Your task to perform on an android device: Is it going to rain today? Image 0: 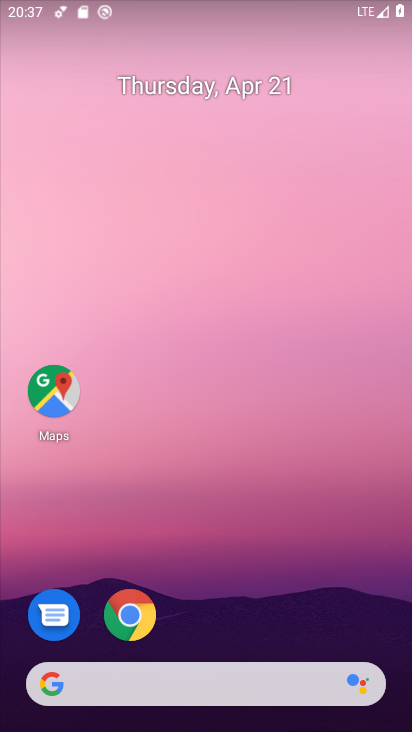
Step 0: drag from (219, 626) to (250, 96)
Your task to perform on an android device: Is it going to rain today? Image 1: 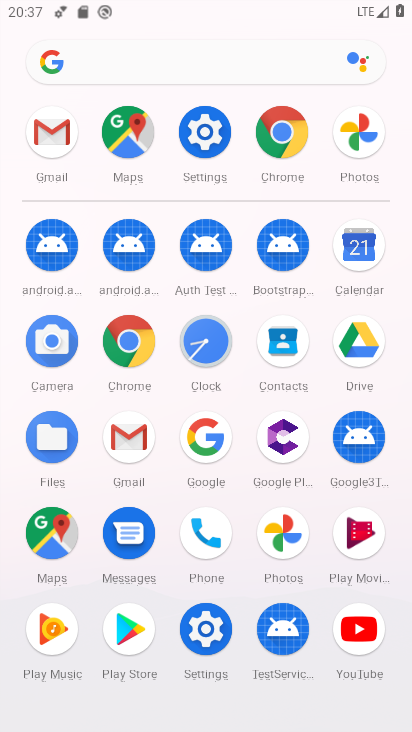
Step 1: click (129, 338)
Your task to perform on an android device: Is it going to rain today? Image 2: 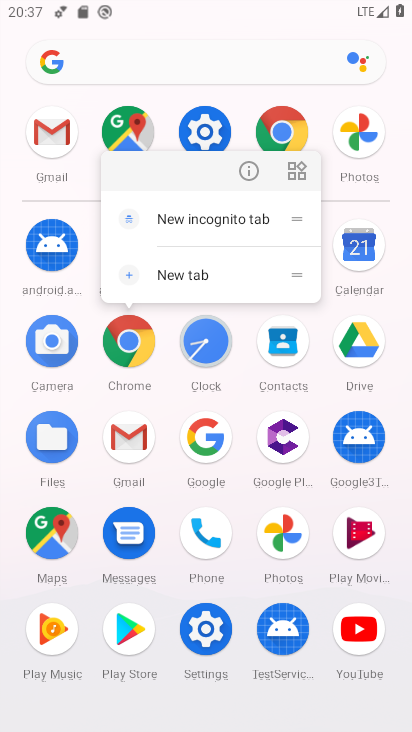
Step 2: click (243, 161)
Your task to perform on an android device: Is it going to rain today? Image 3: 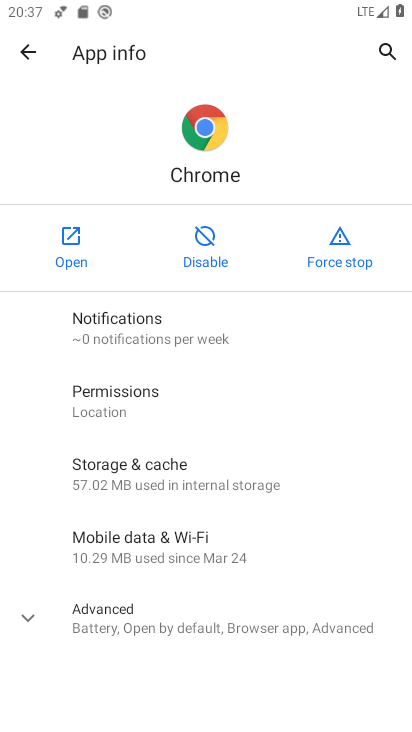
Step 3: click (75, 226)
Your task to perform on an android device: Is it going to rain today? Image 4: 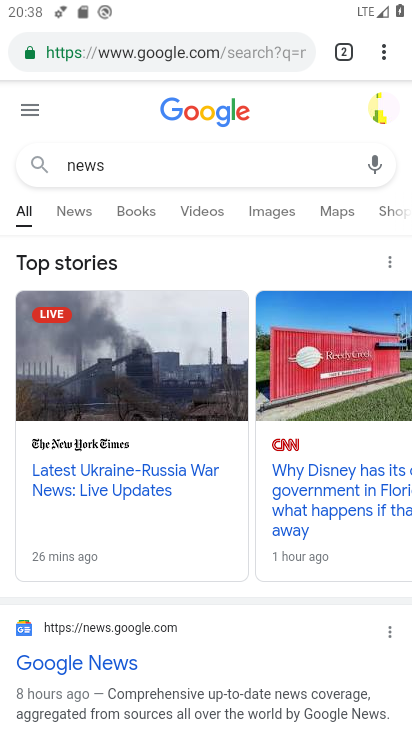
Step 4: drag from (218, 643) to (263, 154)
Your task to perform on an android device: Is it going to rain today? Image 5: 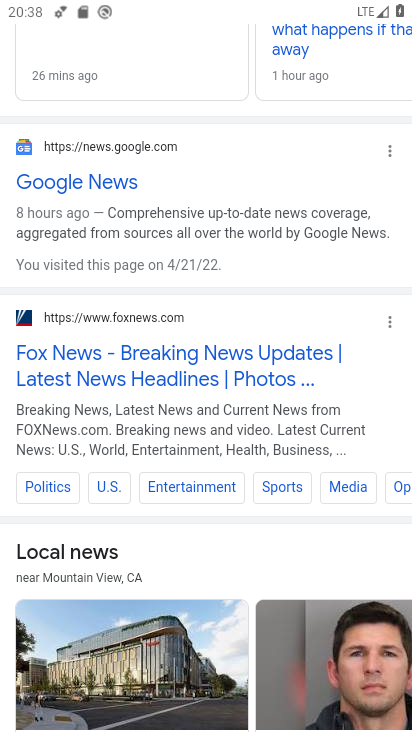
Step 5: drag from (204, 333) to (273, 729)
Your task to perform on an android device: Is it going to rain today? Image 6: 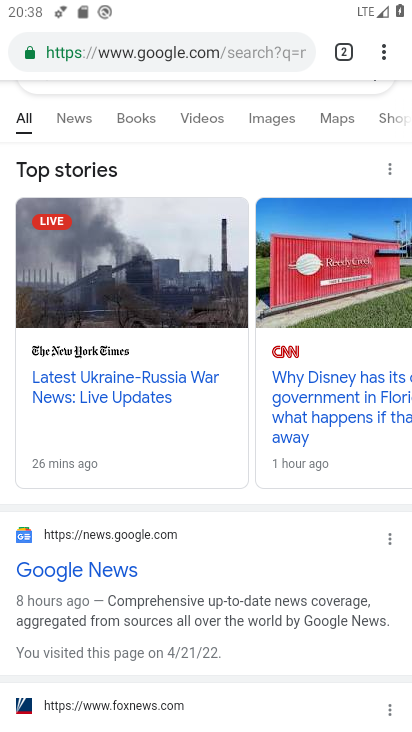
Step 6: click (147, 58)
Your task to perform on an android device: Is it going to rain today? Image 7: 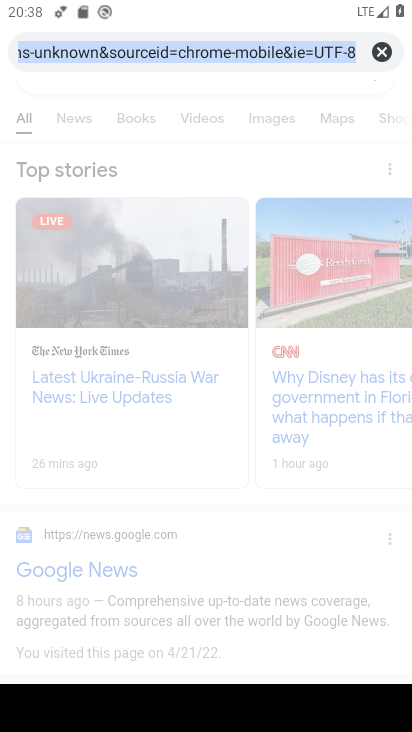
Step 7: click (372, 49)
Your task to perform on an android device: Is it going to rain today? Image 8: 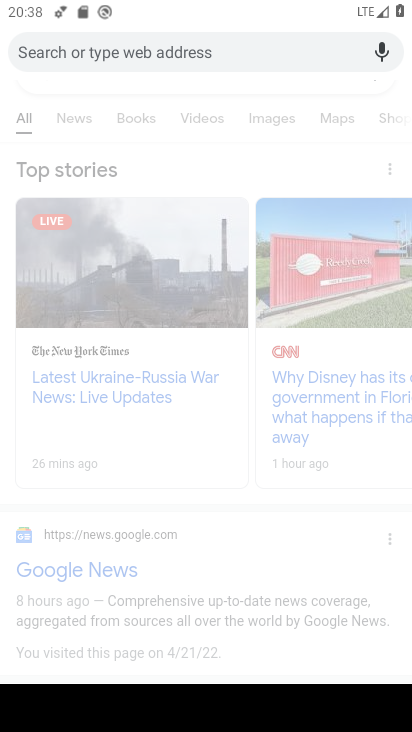
Step 8: click (236, 54)
Your task to perform on an android device: Is it going to rain today? Image 9: 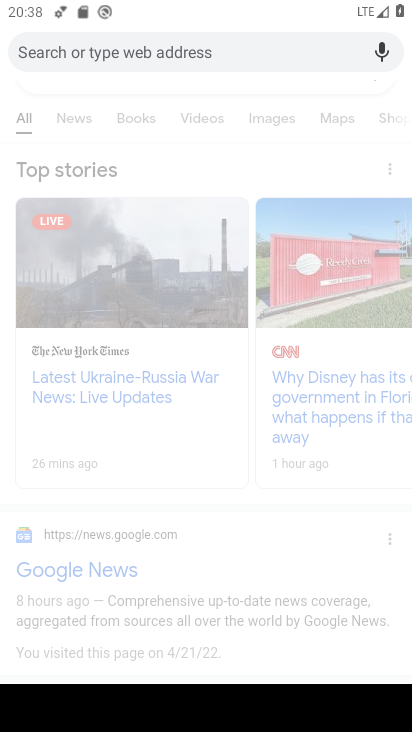
Step 9: type "rain today"
Your task to perform on an android device: Is it going to rain today? Image 10: 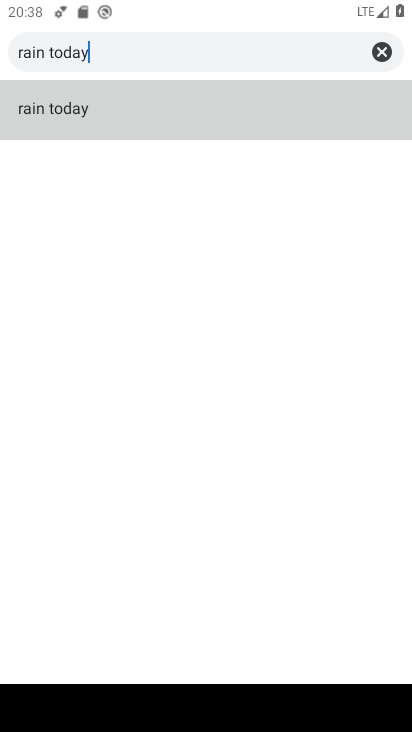
Step 10: click (51, 104)
Your task to perform on an android device: Is it going to rain today? Image 11: 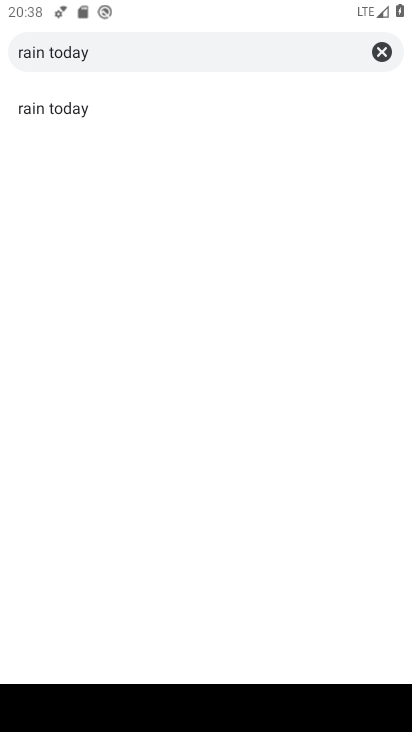
Step 11: task complete